Your task to perform on an android device: Check the weather Image 0: 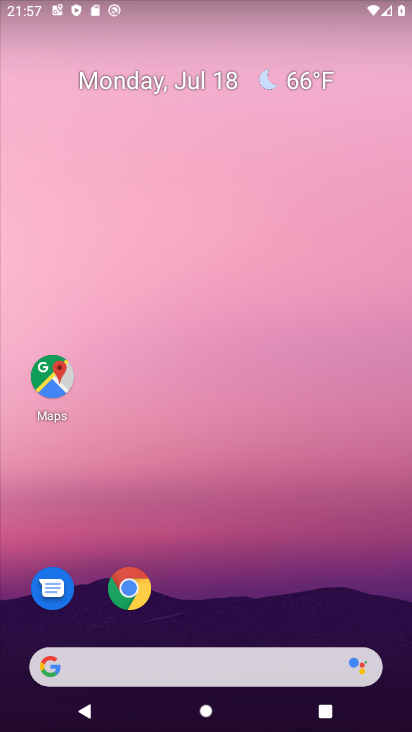
Step 0: click (209, 678)
Your task to perform on an android device: Check the weather Image 1: 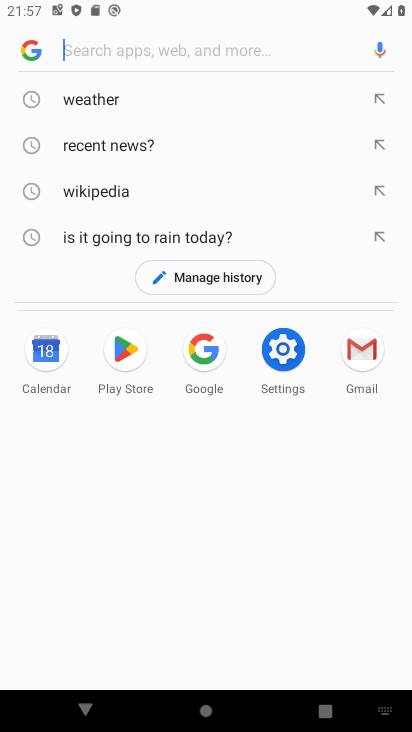
Step 1: click (98, 93)
Your task to perform on an android device: Check the weather Image 2: 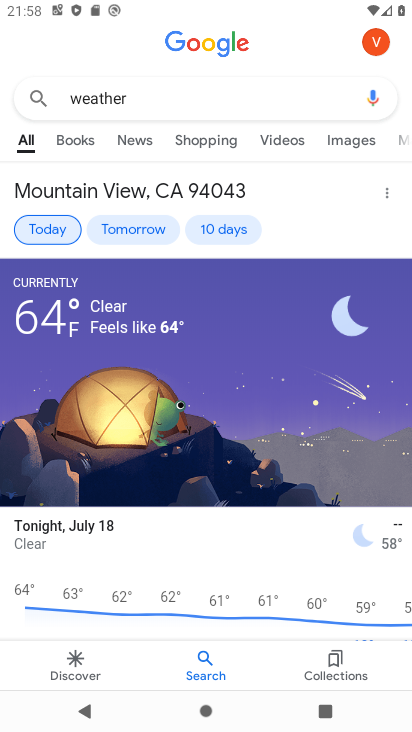
Step 2: task complete